Your task to perform on an android device: Open Wikipedia Image 0: 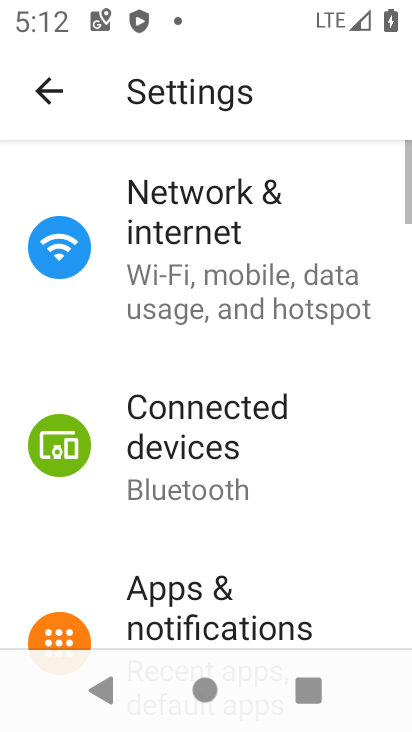
Step 0: press home button
Your task to perform on an android device: Open Wikipedia Image 1: 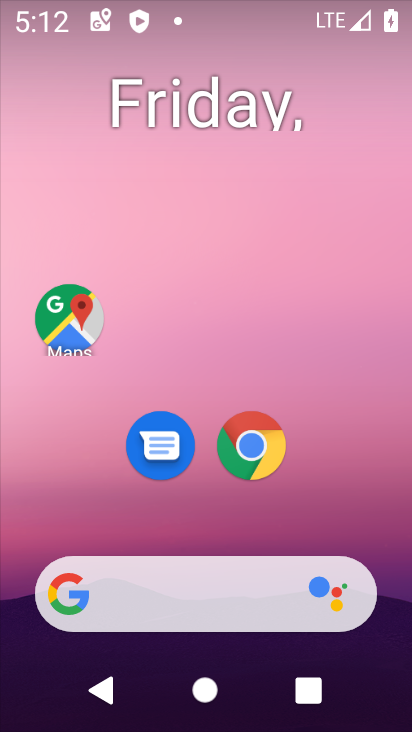
Step 1: click (270, 441)
Your task to perform on an android device: Open Wikipedia Image 2: 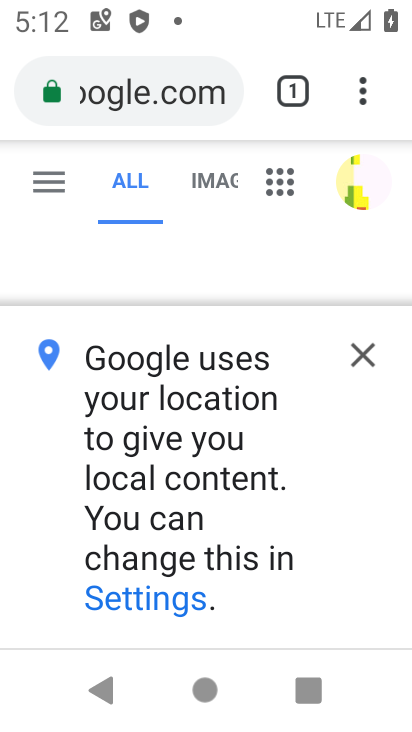
Step 2: click (192, 73)
Your task to perform on an android device: Open Wikipedia Image 3: 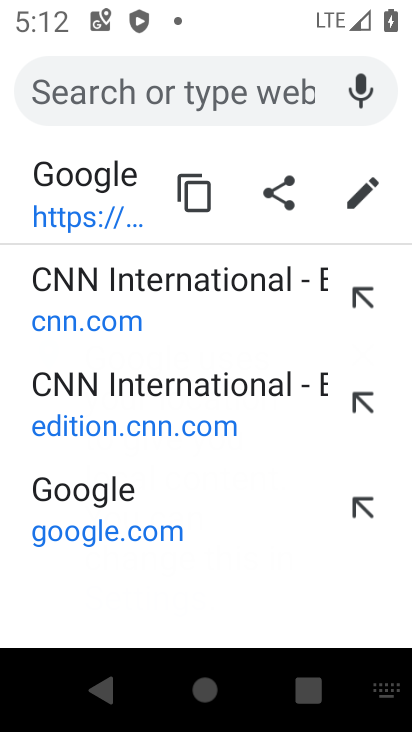
Step 3: type "wikipedia.com"
Your task to perform on an android device: Open Wikipedia Image 4: 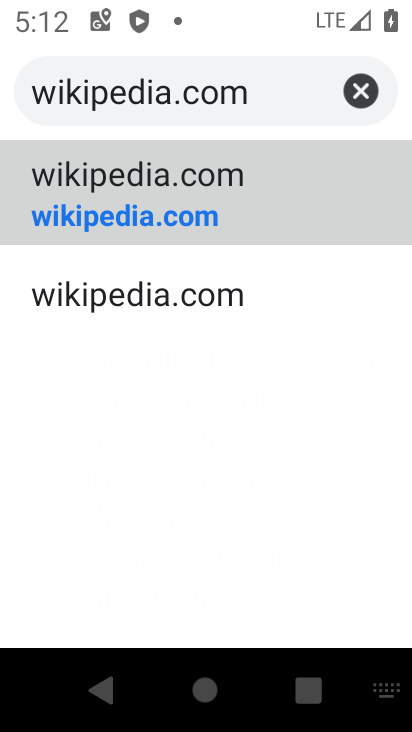
Step 4: click (115, 188)
Your task to perform on an android device: Open Wikipedia Image 5: 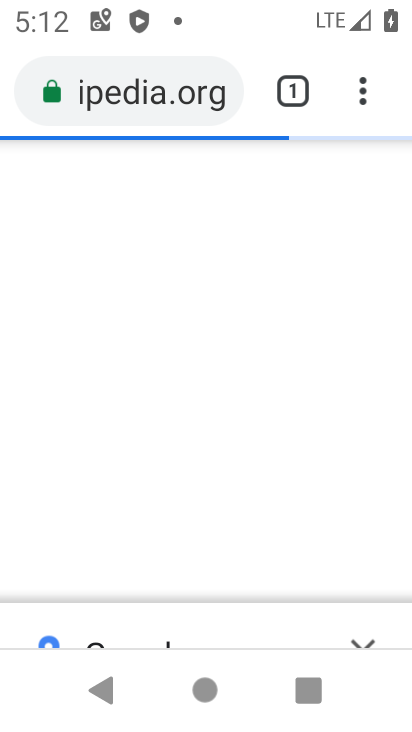
Step 5: task complete